Your task to perform on an android device: toggle location history Image 0: 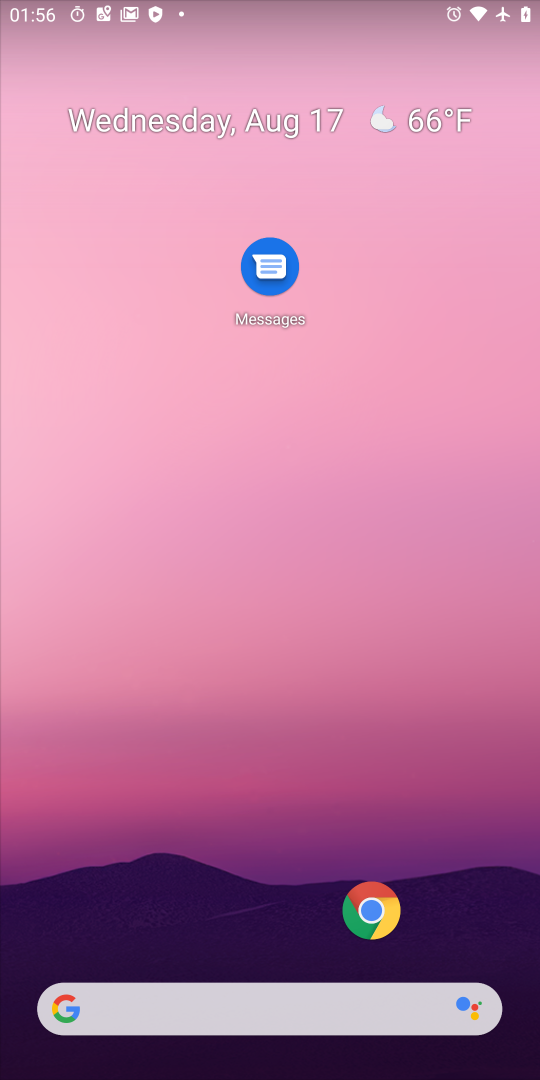
Step 0: drag from (258, 741) to (352, 6)
Your task to perform on an android device: toggle location history Image 1: 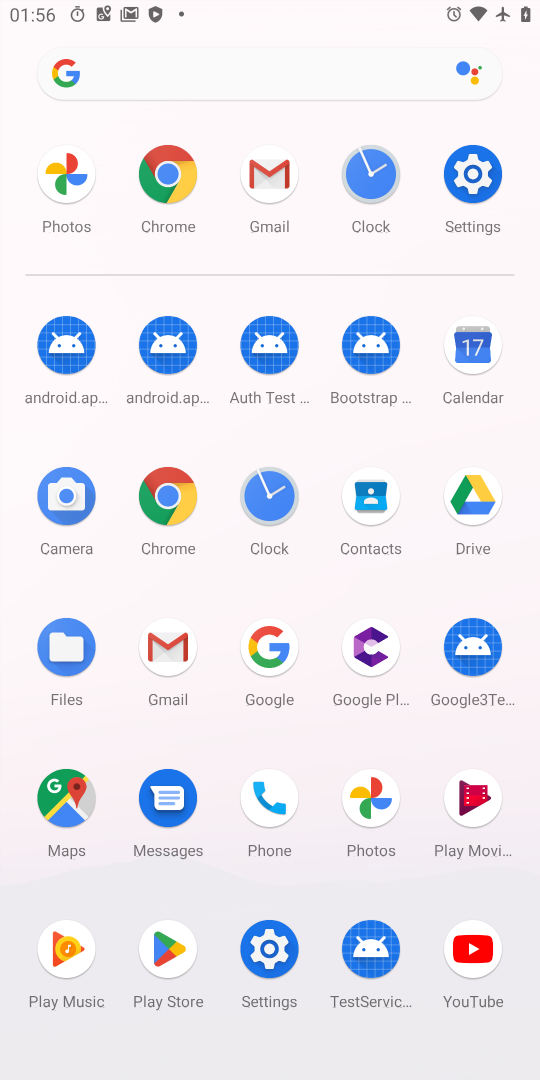
Step 1: click (274, 941)
Your task to perform on an android device: toggle location history Image 2: 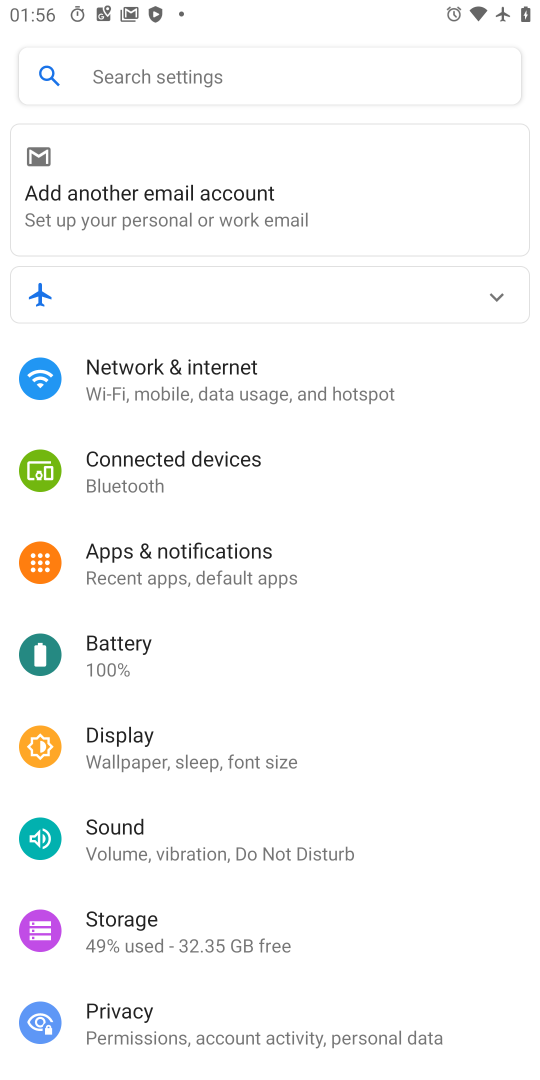
Step 2: drag from (273, 932) to (335, 82)
Your task to perform on an android device: toggle location history Image 3: 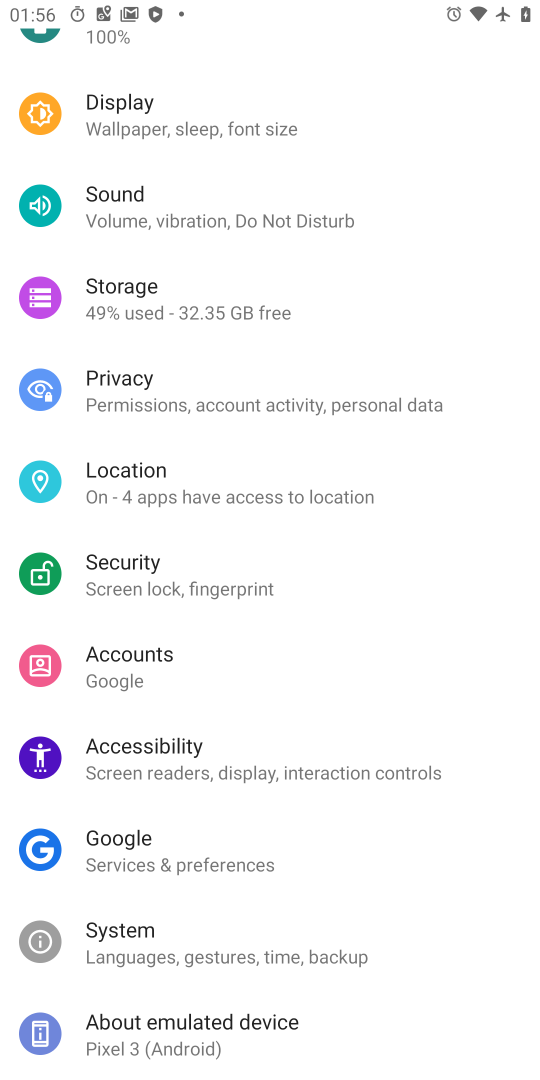
Step 3: drag from (275, 934) to (348, 233)
Your task to perform on an android device: toggle location history Image 4: 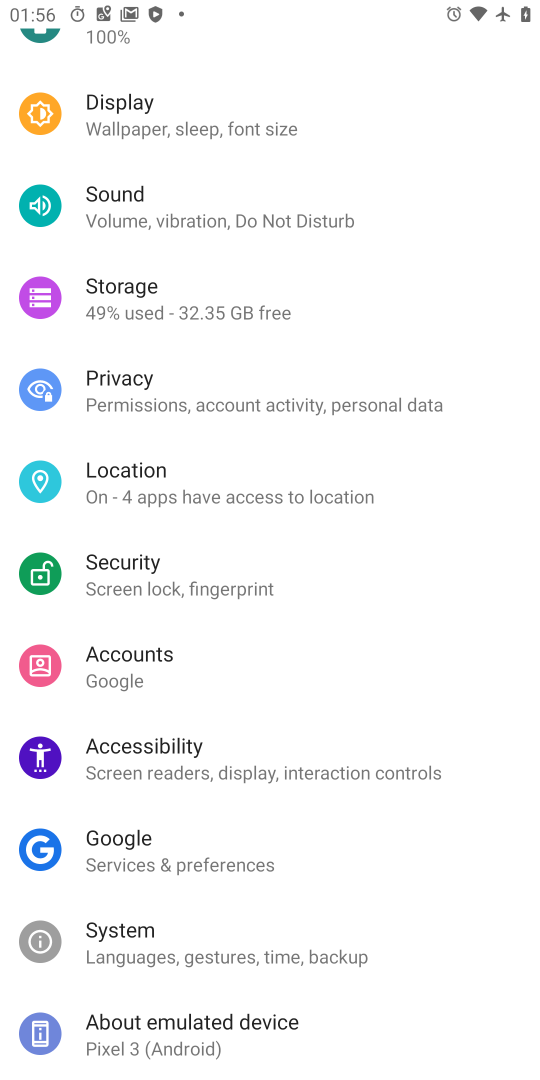
Step 4: click (158, 468)
Your task to perform on an android device: toggle location history Image 5: 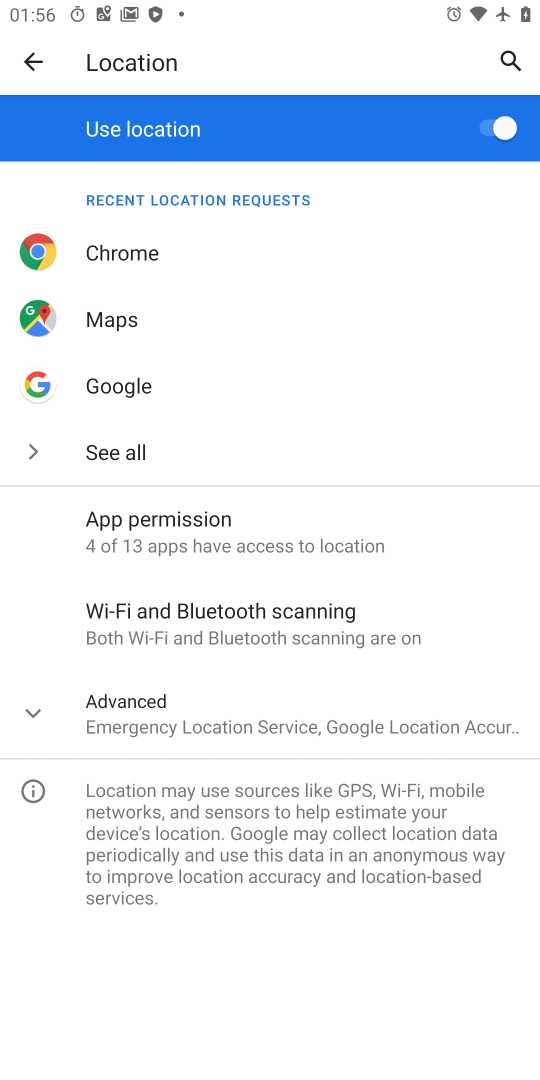
Step 5: click (156, 713)
Your task to perform on an android device: toggle location history Image 6: 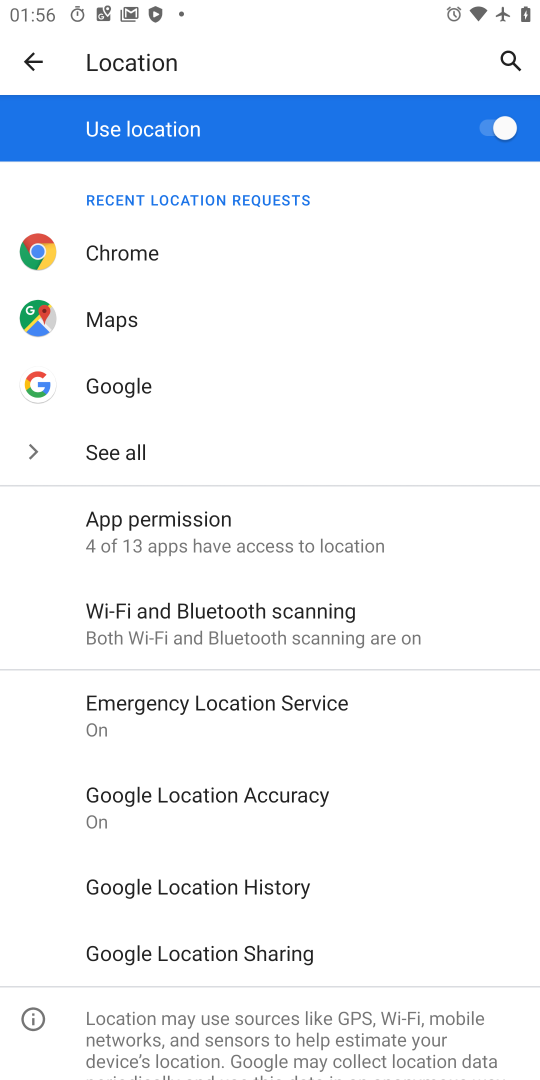
Step 6: click (271, 889)
Your task to perform on an android device: toggle location history Image 7: 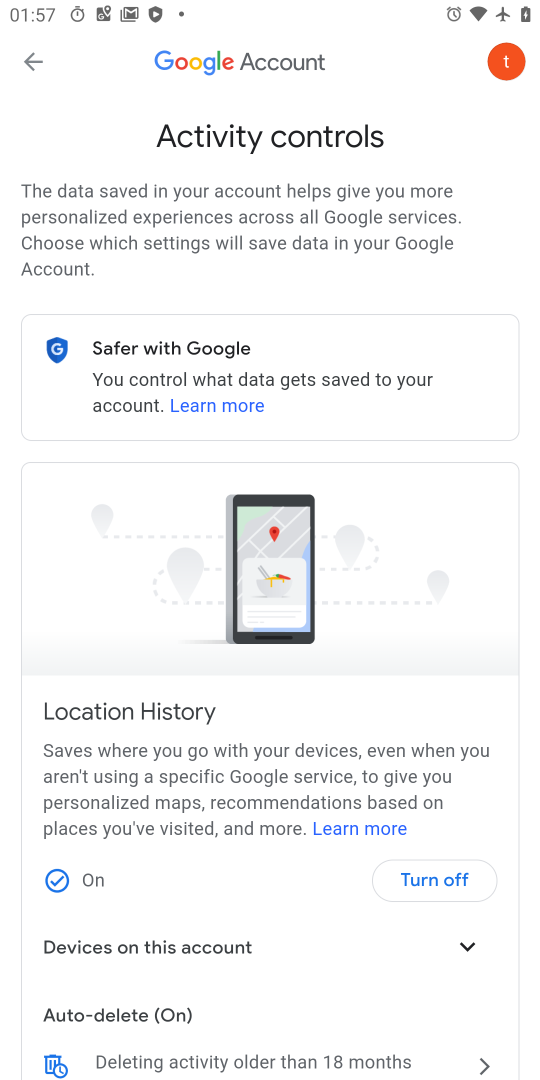
Step 7: click (405, 878)
Your task to perform on an android device: toggle location history Image 8: 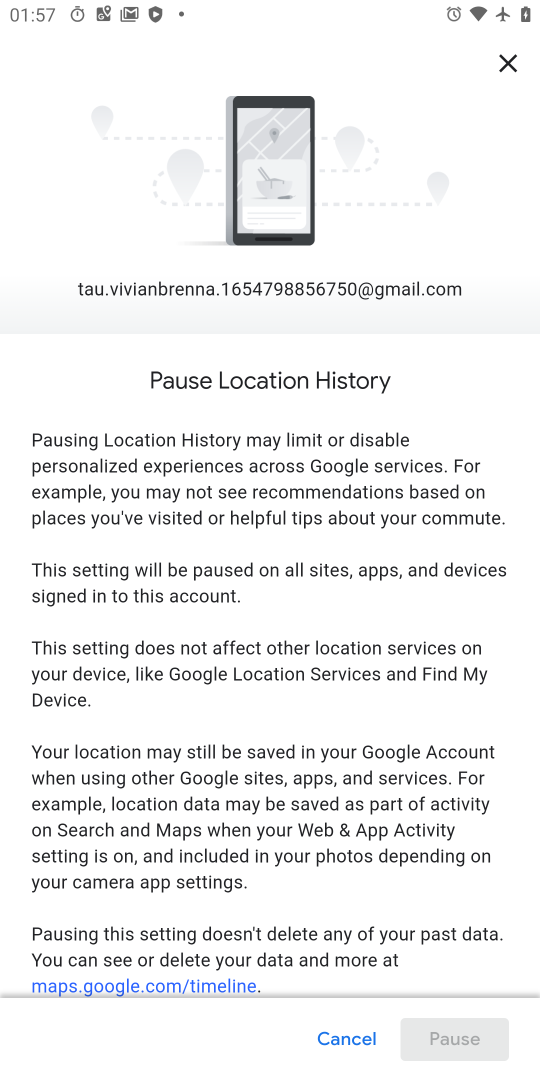
Step 8: drag from (414, 902) to (426, 248)
Your task to perform on an android device: toggle location history Image 9: 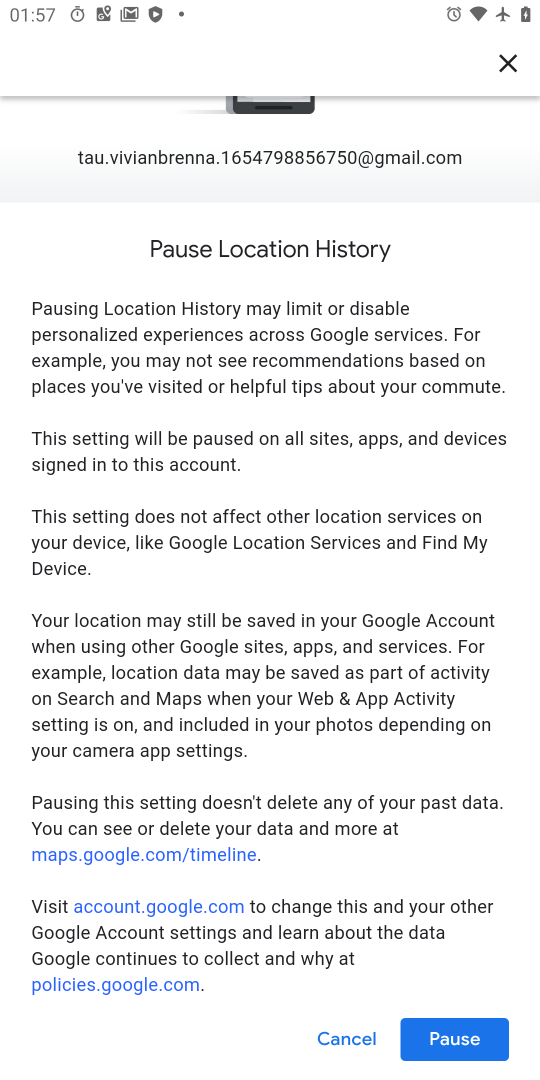
Step 9: drag from (370, 843) to (386, 381)
Your task to perform on an android device: toggle location history Image 10: 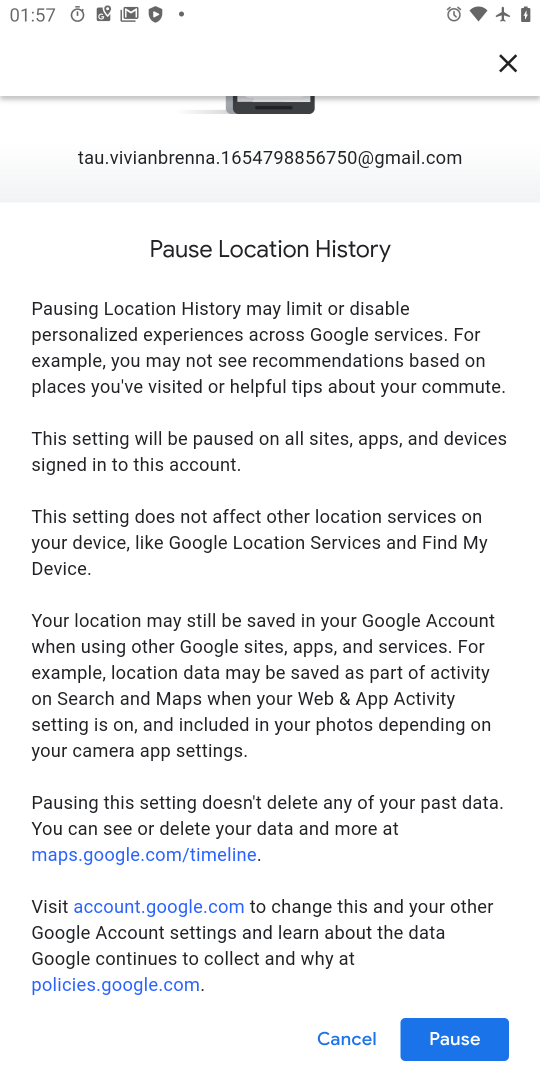
Step 10: click (458, 1032)
Your task to perform on an android device: toggle location history Image 11: 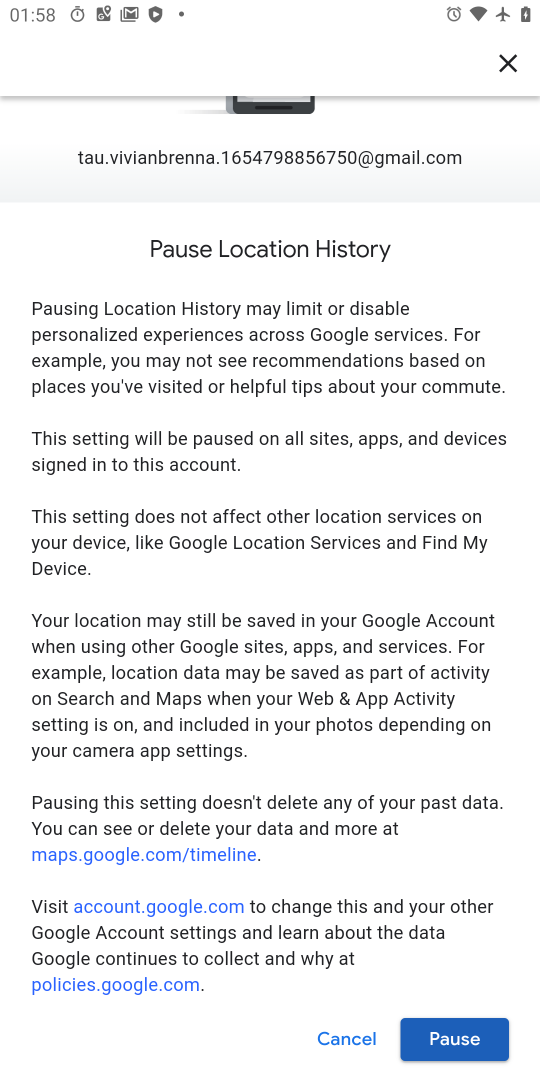
Step 11: click (439, 1039)
Your task to perform on an android device: toggle location history Image 12: 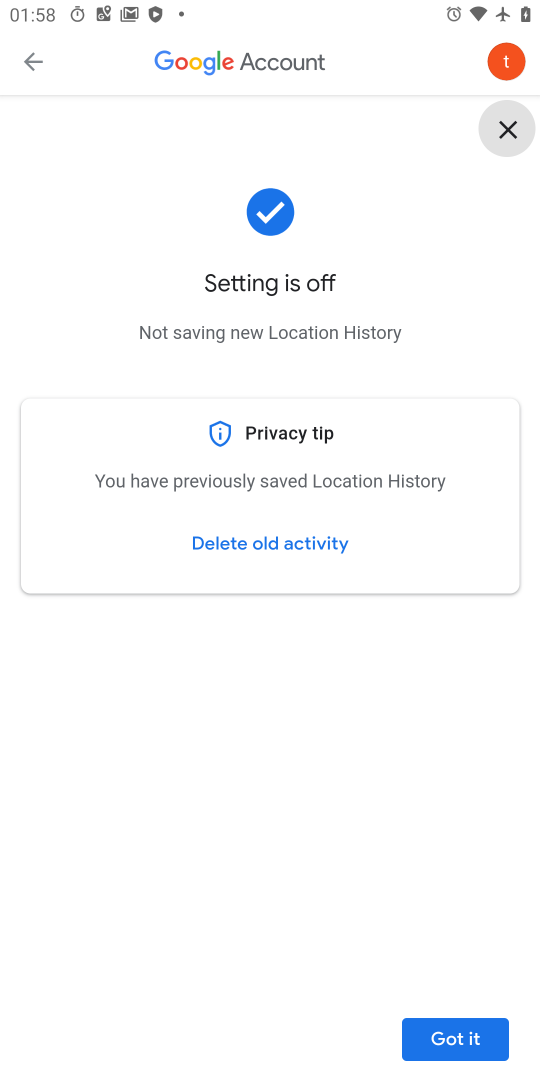
Step 12: task complete